Your task to perform on an android device: Open maps Image 0: 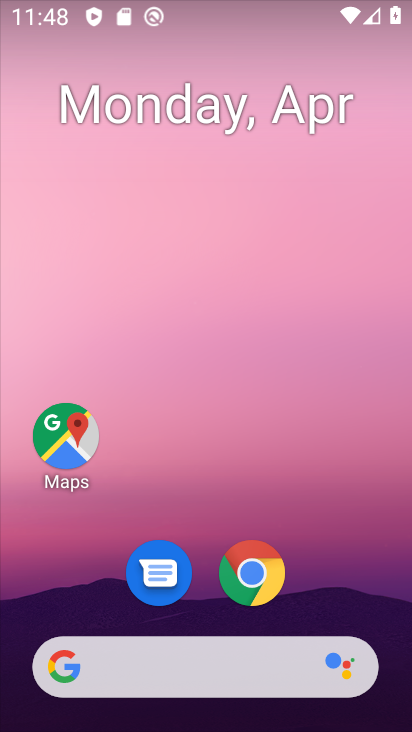
Step 0: click (41, 413)
Your task to perform on an android device: Open maps Image 1: 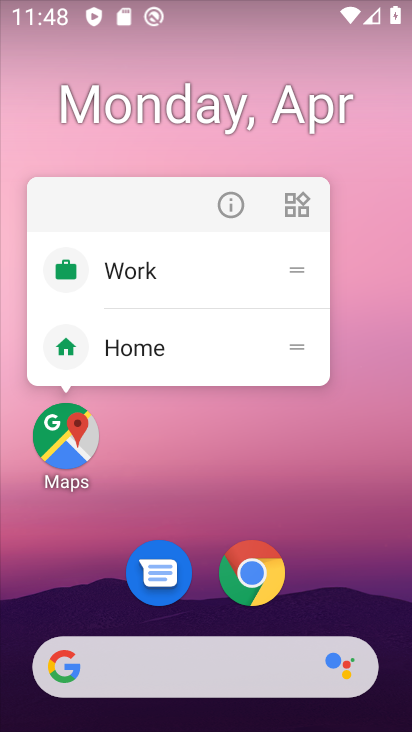
Step 1: click (66, 436)
Your task to perform on an android device: Open maps Image 2: 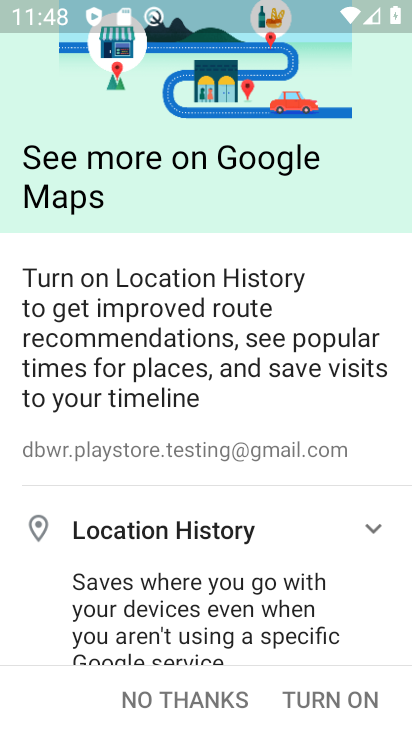
Step 2: click (306, 699)
Your task to perform on an android device: Open maps Image 3: 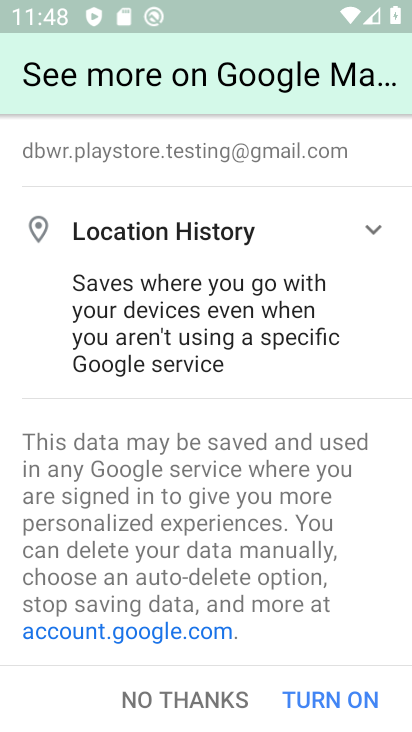
Step 3: click (318, 697)
Your task to perform on an android device: Open maps Image 4: 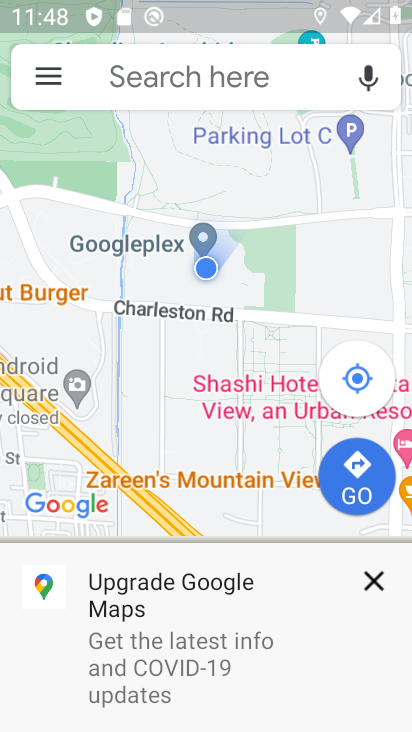
Step 4: task complete